Your task to perform on an android device: check android version Image 0: 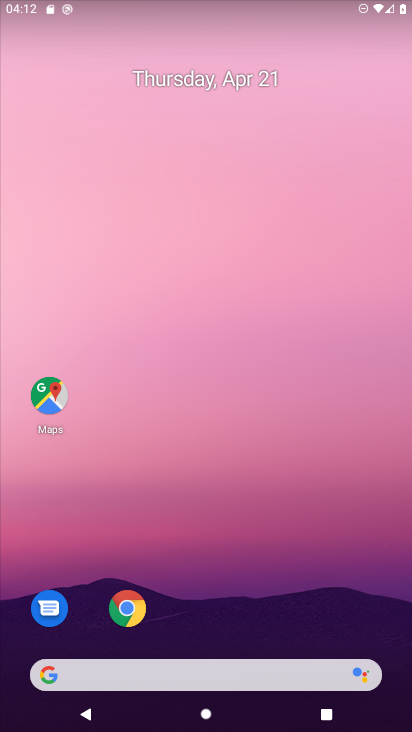
Step 0: drag from (230, 625) to (254, 168)
Your task to perform on an android device: check android version Image 1: 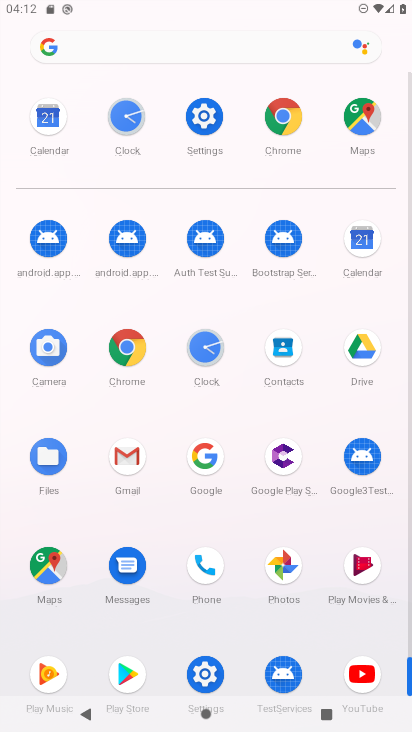
Step 1: click (202, 680)
Your task to perform on an android device: check android version Image 2: 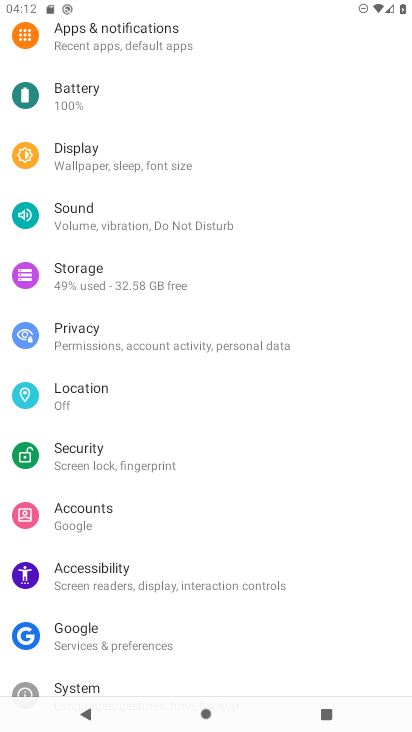
Step 2: drag from (158, 501) to (287, 76)
Your task to perform on an android device: check android version Image 3: 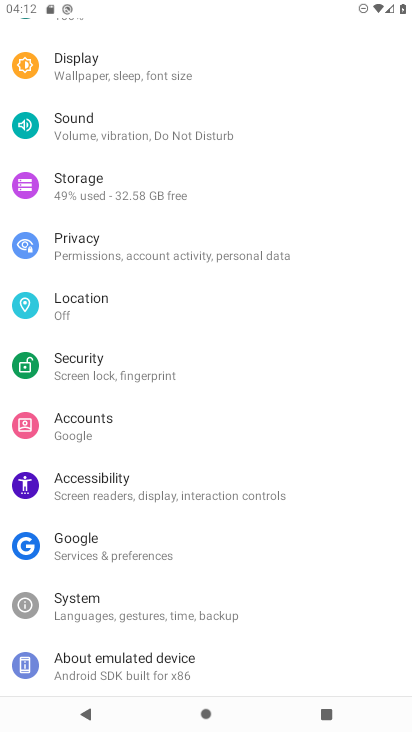
Step 3: click (194, 667)
Your task to perform on an android device: check android version Image 4: 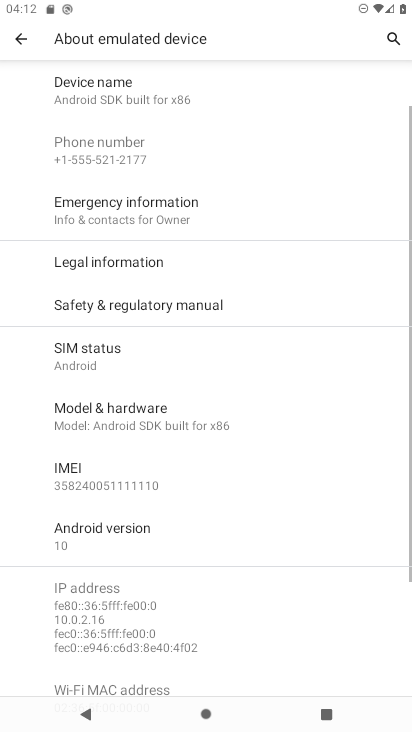
Step 4: click (145, 530)
Your task to perform on an android device: check android version Image 5: 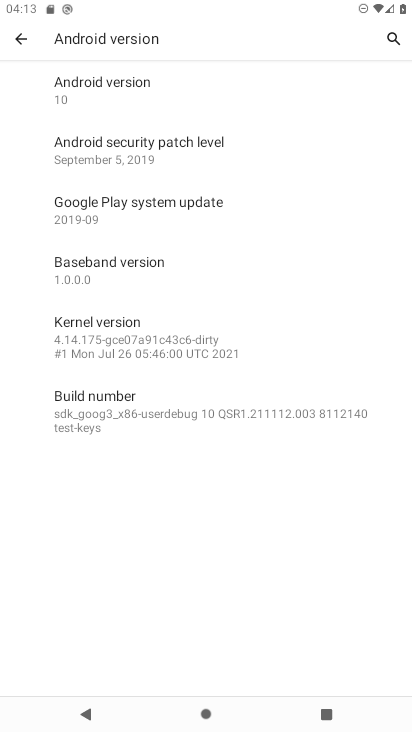
Step 5: task complete